Your task to perform on an android device: Open Amazon Image 0: 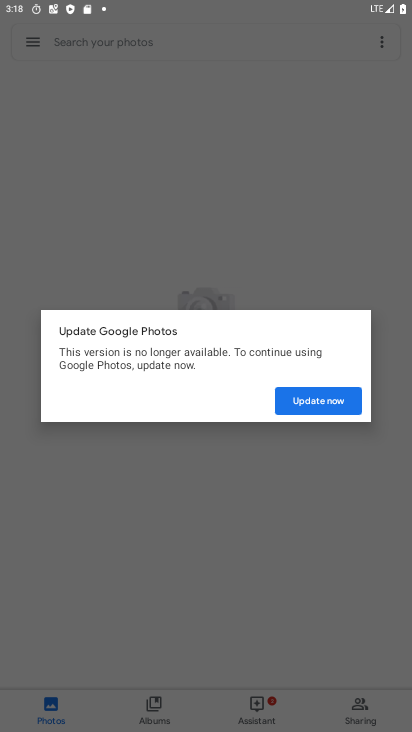
Step 0: press back button
Your task to perform on an android device: Open Amazon Image 1: 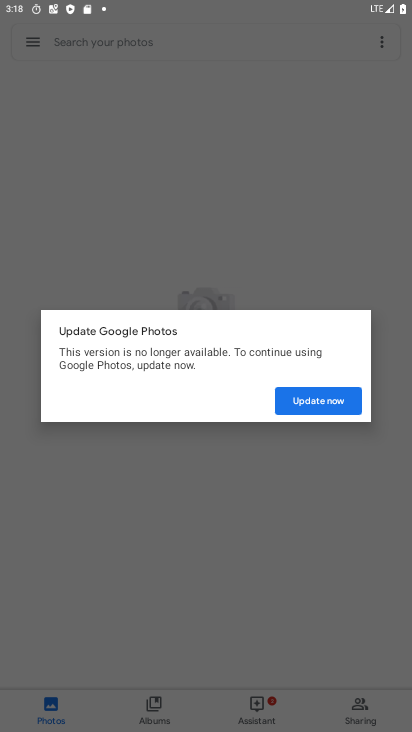
Step 1: press home button
Your task to perform on an android device: Open Amazon Image 2: 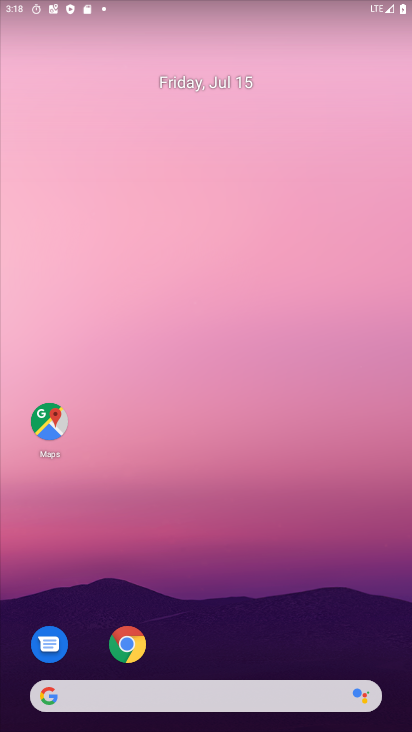
Step 2: click (127, 638)
Your task to perform on an android device: Open Amazon Image 3: 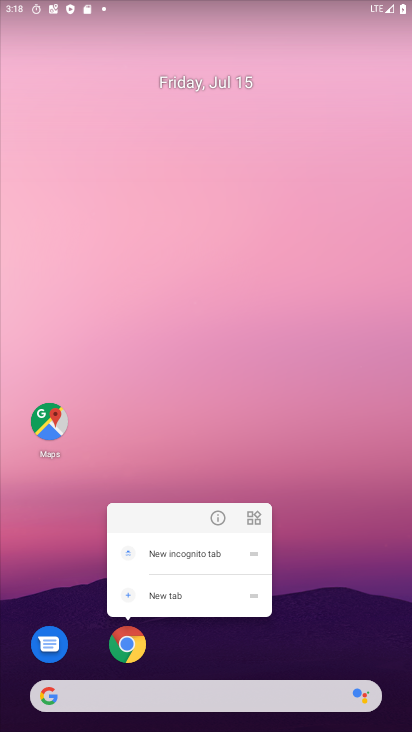
Step 3: click (124, 646)
Your task to perform on an android device: Open Amazon Image 4: 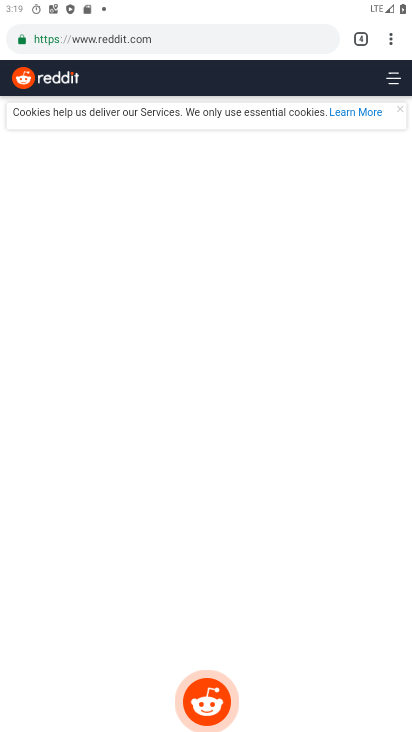
Step 4: click (366, 33)
Your task to perform on an android device: Open Amazon Image 5: 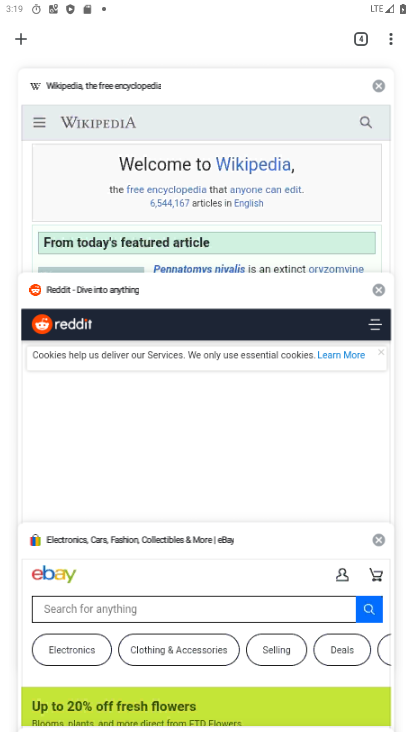
Step 5: click (21, 37)
Your task to perform on an android device: Open Amazon Image 6: 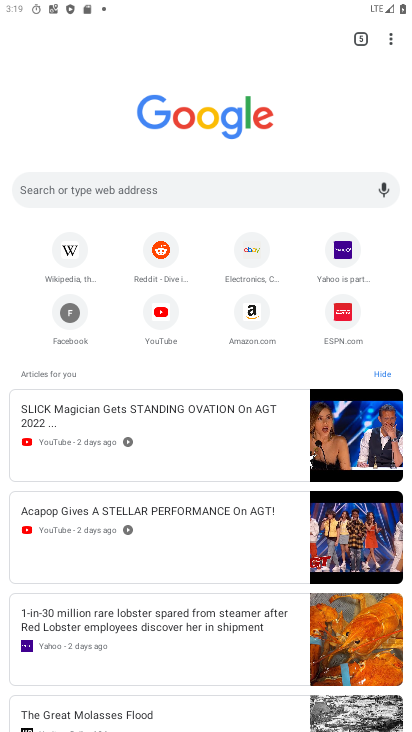
Step 6: click (246, 314)
Your task to perform on an android device: Open Amazon Image 7: 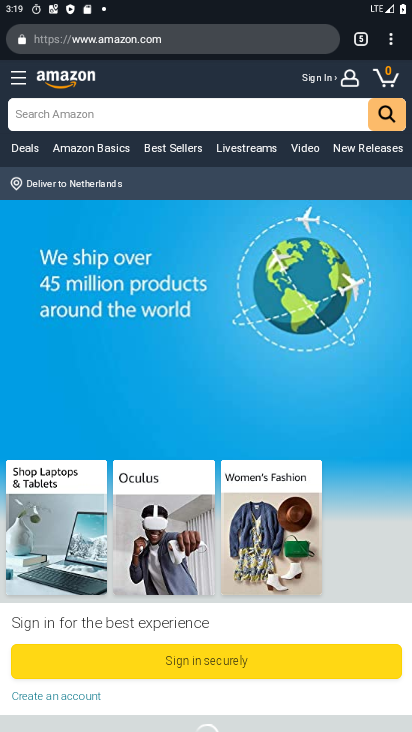
Step 7: task complete